Your task to perform on an android device: make emails show in primary in the gmail app Image 0: 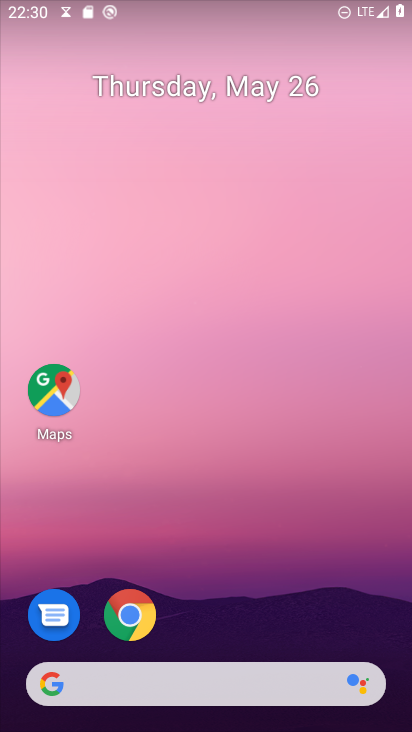
Step 0: drag from (250, 579) to (263, 254)
Your task to perform on an android device: make emails show in primary in the gmail app Image 1: 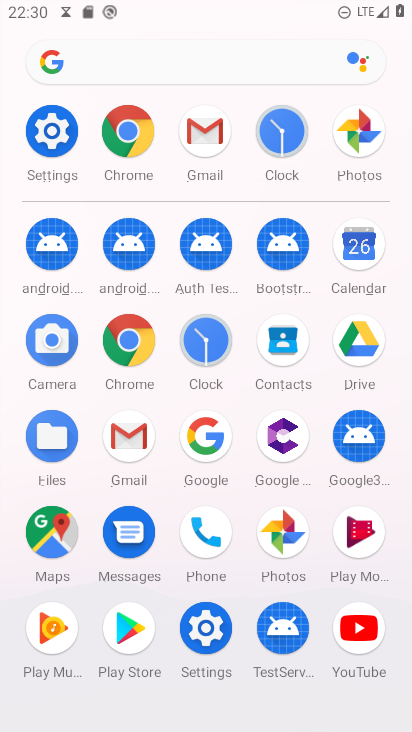
Step 1: click (126, 430)
Your task to perform on an android device: make emails show in primary in the gmail app Image 2: 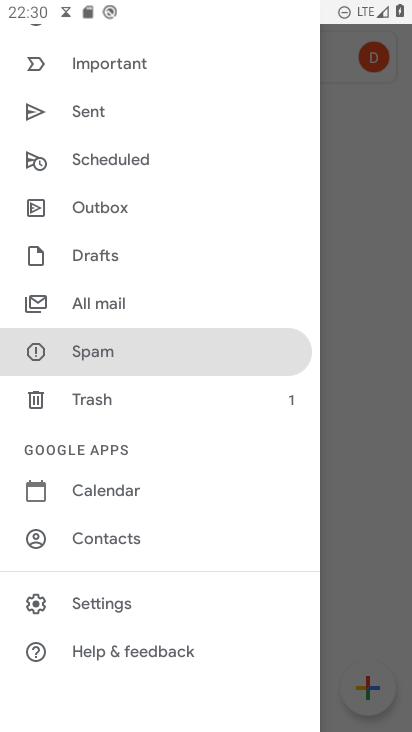
Step 2: click (110, 601)
Your task to perform on an android device: make emails show in primary in the gmail app Image 3: 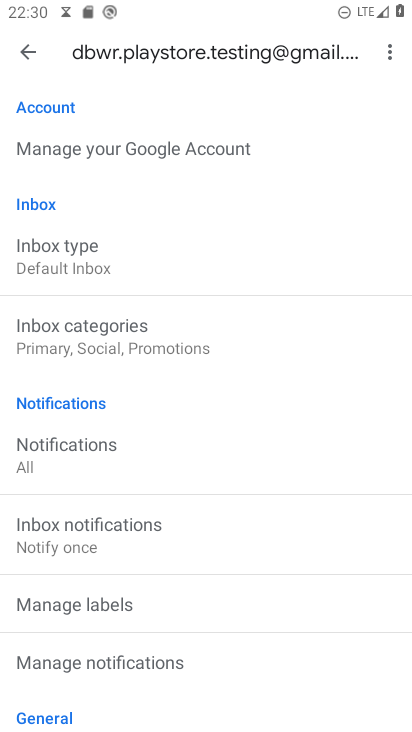
Step 3: drag from (148, 561) to (212, 285)
Your task to perform on an android device: make emails show in primary in the gmail app Image 4: 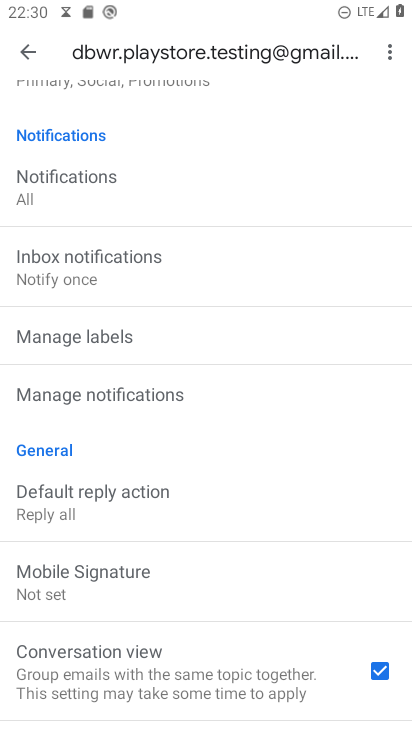
Step 4: drag from (167, 559) to (189, 613)
Your task to perform on an android device: make emails show in primary in the gmail app Image 5: 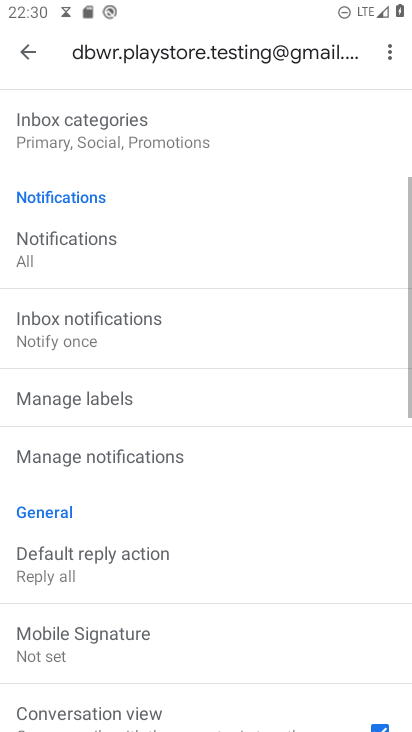
Step 5: drag from (192, 129) to (197, 537)
Your task to perform on an android device: make emails show in primary in the gmail app Image 6: 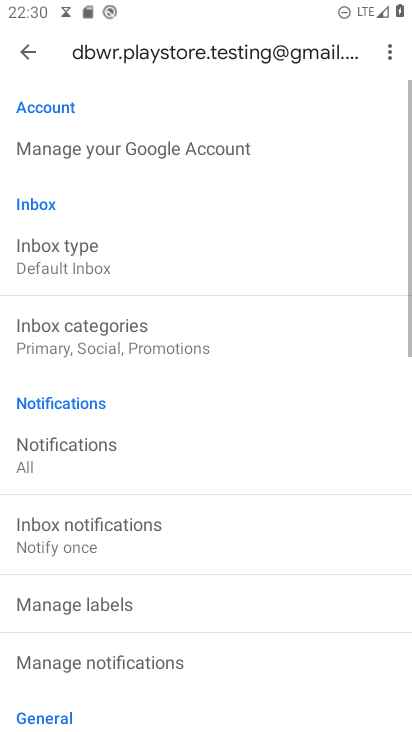
Step 6: click (69, 267)
Your task to perform on an android device: make emails show in primary in the gmail app Image 7: 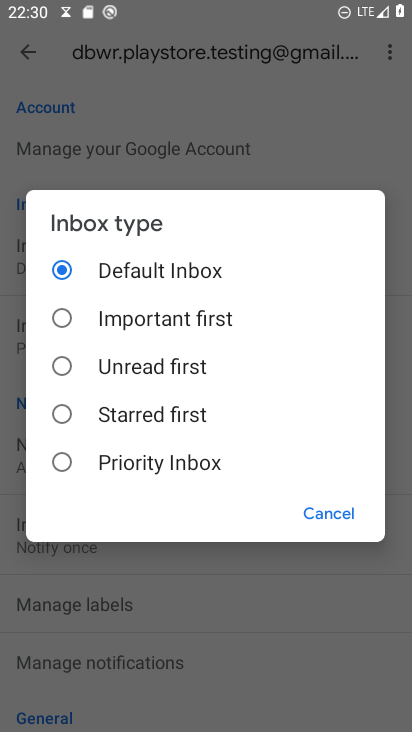
Step 7: click (328, 509)
Your task to perform on an android device: make emails show in primary in the gmail app Image 8: 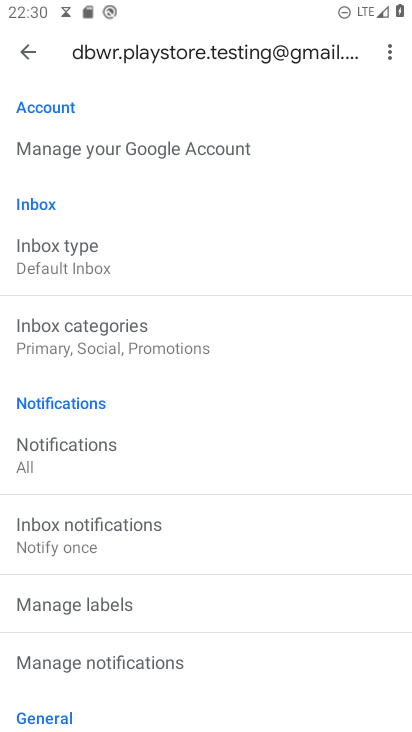
Step 8: click (135, 361)
Your task to perform on an android device: make emails show in primary in the gmail app Image 9: 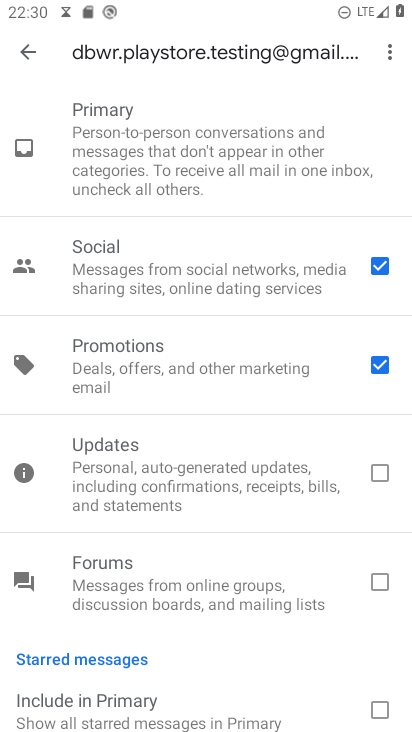
Step 9: click (382, 462)
Your task to perform on an android device: make emails show in primary in the gmail app Image 10: 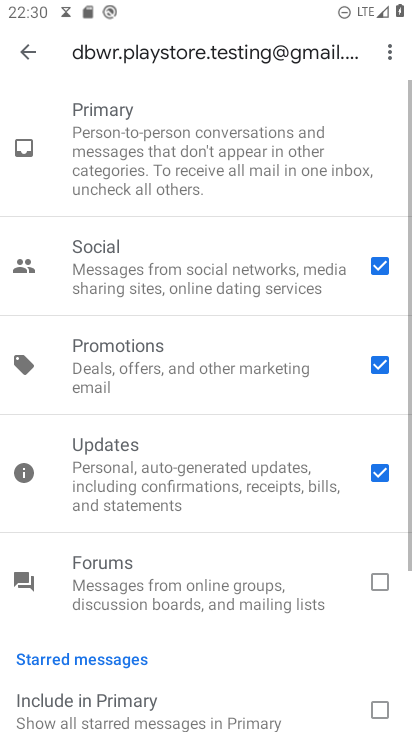
Step 10: click (384, 469)
Your task to perform on an android device: make emails show in primary in the gmail app Image 11: 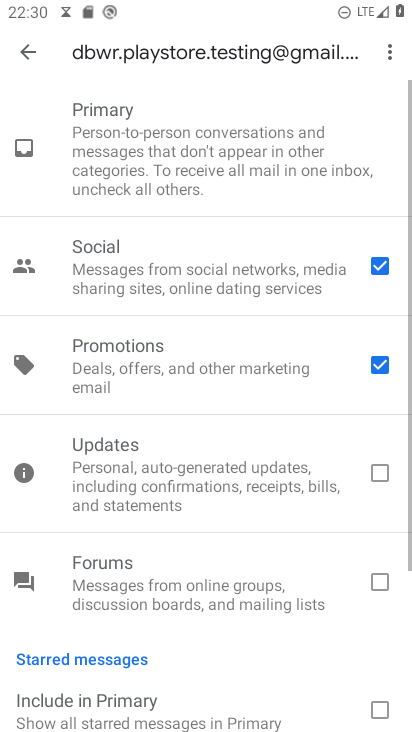
Step 11: task complete